Your task to perform on an android device: Go to wifi settings Image 0: 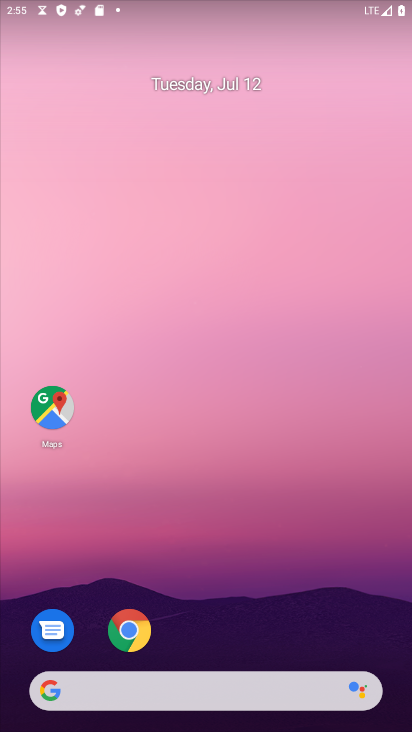
Step 0: drag from (230, 635) to (221, 63)
Your task to perform on an android device: Go to wifi settings Image 1: 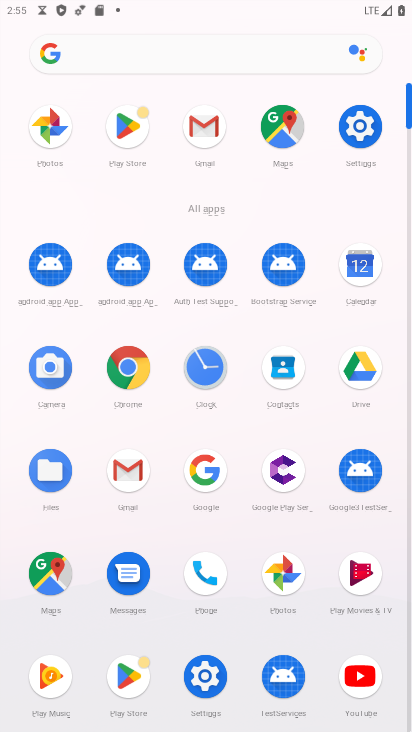
Step 1: click (207, 676)
Your task to perform on an android device: Go to wifi settings Image 2: 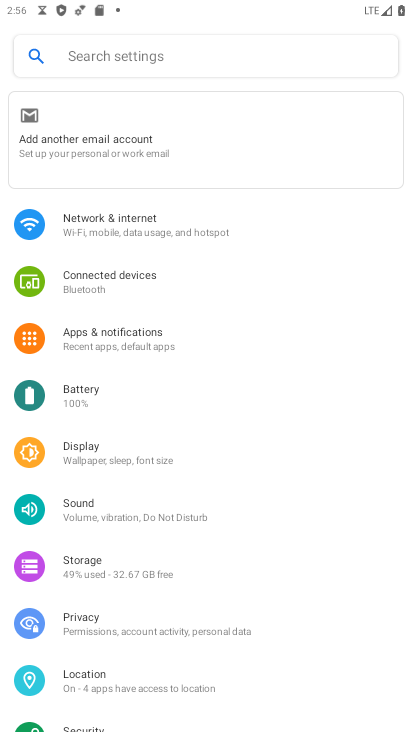
Step 2: click (150, 215)
Your task to perform on an android device: Go to wifi settings Image 3: 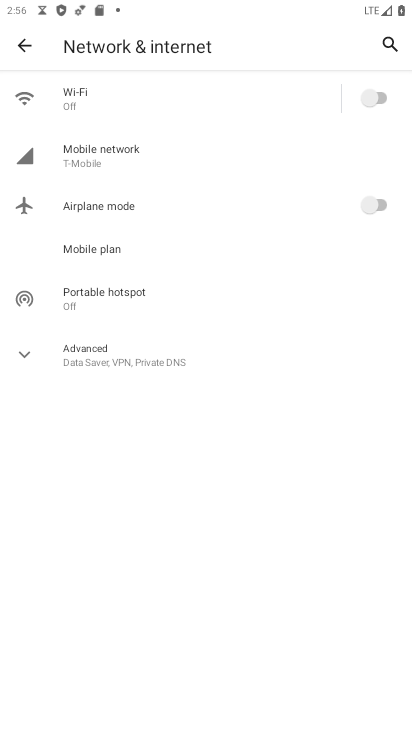
Step 3: click (135, 88)
Your task to perform on an android device: Go to wifi settings Image 4: 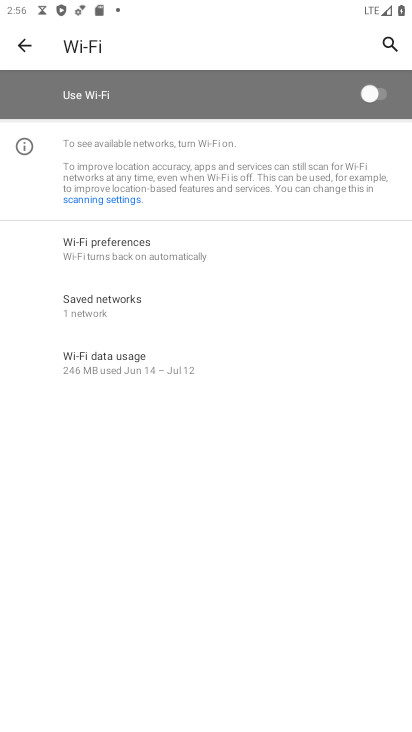
Step 4: task complete